Your task to perform on an android device: Search for seafood restaurants on Google Maps Image 0: 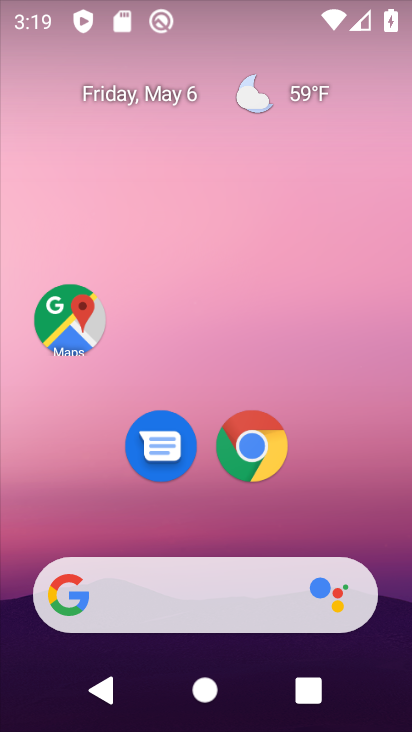
Step 0: click (58, 328)
Your task to perform on an android device: Search for seafood restaurants on Google Maps Image 1: 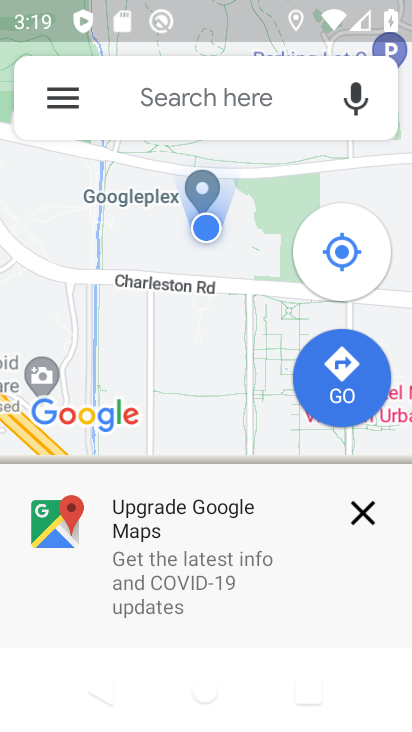
Step 1: click (229, 99)
Your task to perform on an android device: Search for seafood restaurants on Google Maps Image 2: 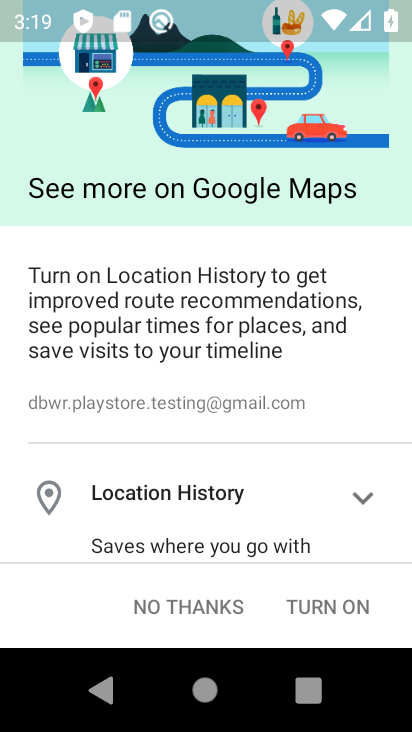
Step 2: press back button
Your task to perform on an android device: Search for seafood restaurants on Google Maps Image 3: 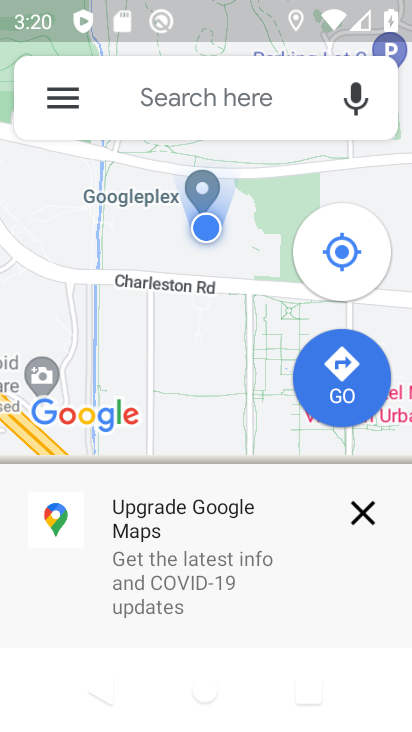
Step 3: click (291, 97)
Your task to perform on an android device: Search for seafood restaurants on Google Maps Image 4: 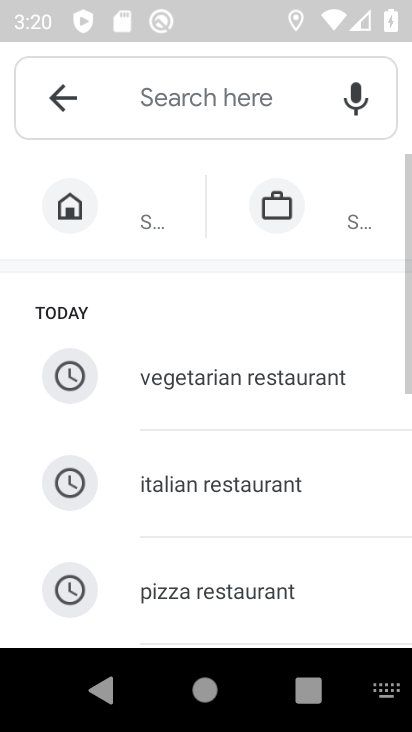
Step 4: drag from (273, 602) to (278, 317)
Your task to perform on an android device: Search for seafood restaurants on Google Maps Image 5: 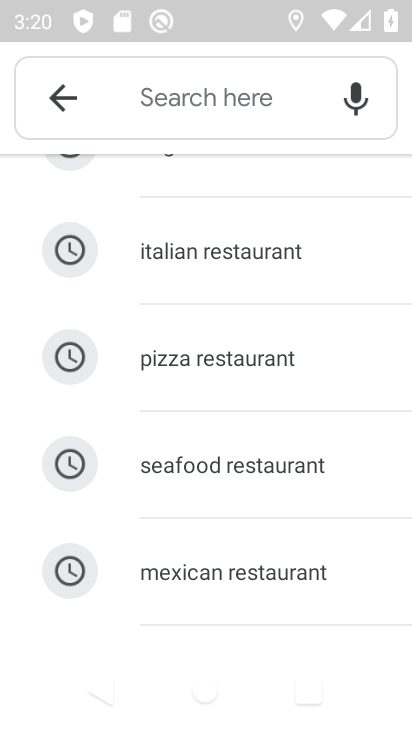
Step 5: click (250, 475)
Your task to perform on an android device: Search for seafood restaurants on Google Maps Image 6: 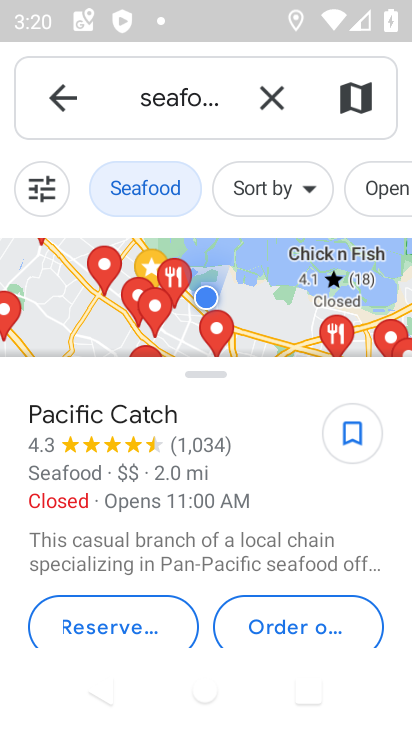
Step 6: task complete